Your task to perform on an android device: check storage Image 0: 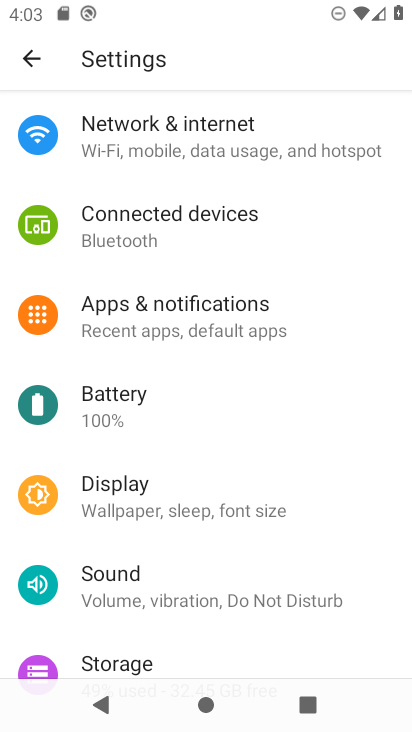
Step 0: drag from (158, 640) to (139, 380)
Your task to perform on an android device: check storage Image 1: 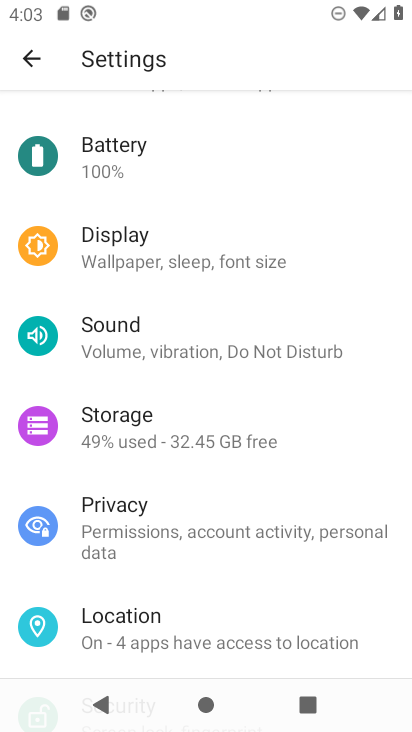
Step 1: click (132, 427)
Your task to perform on an android device: check storage Image 2: 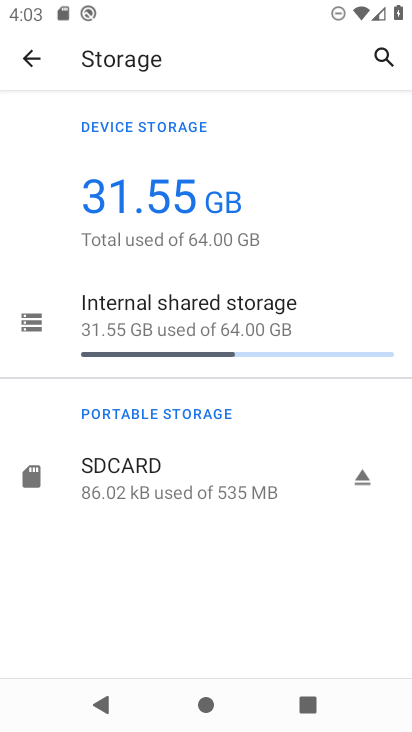
Step 2: task complete